Your task to perform on an android device: See recent photos Image 0: 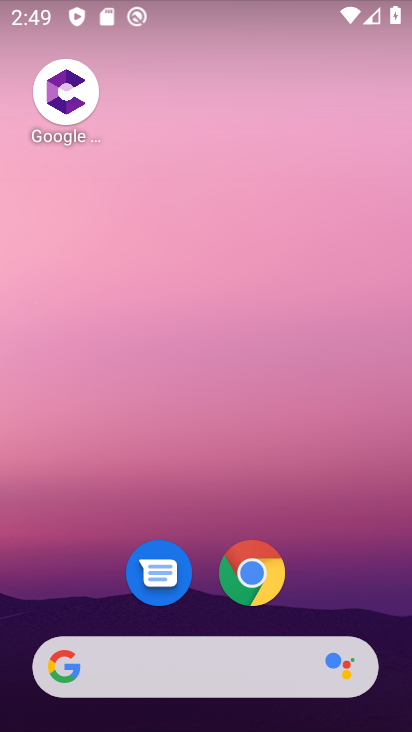
Step 0: drag from (332, 499) to (168, 63)
Your task to perform on an android device: See recent photos Image 1: 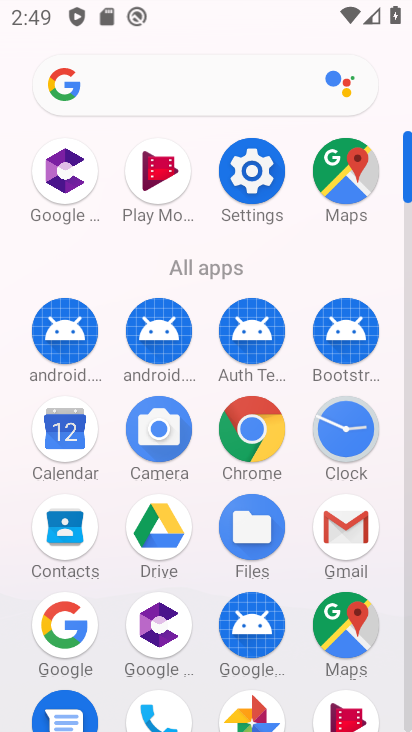
Step 1: drag from (203, 662) to (132, 398)
Your task to perform on an android device: See recent photos Image 2: 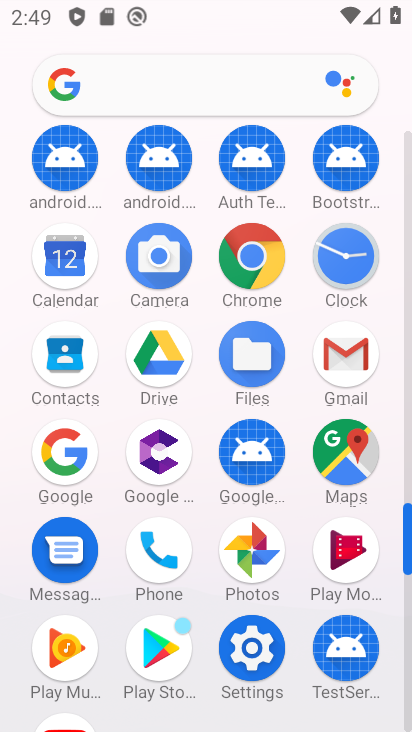
Step 2: click (255, 546)
Your task to perform on an android device: See recent photos Image 3: 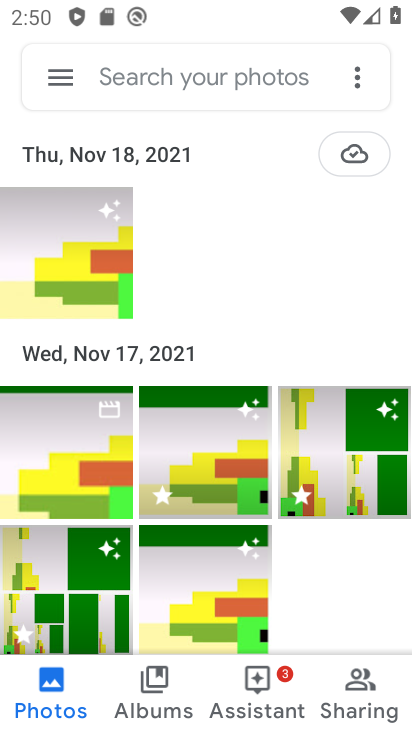
Step 3: task complete